Your task to perform on an android device: turn on showing notifications on the lock screen Image 0: 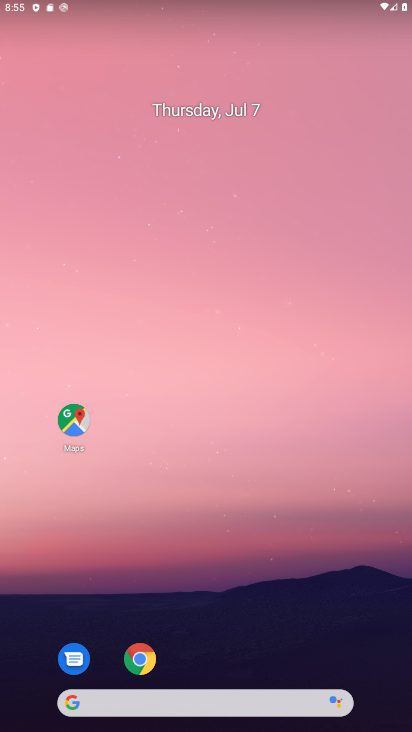
Step 0: drag from (228, 682) to (240, 5)
Your task to perform on an android device: turn on showing notifications on the lock screen Image 1: 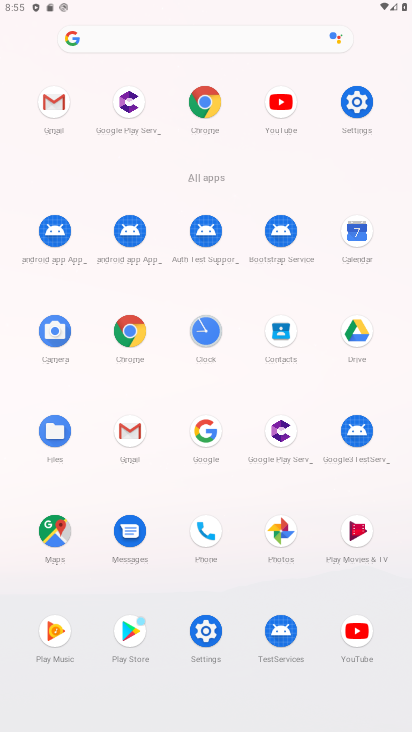
Step 1: click (212, 637)
Your task to perform on an android device: turn on showing notifications on the lock screen Image 2: 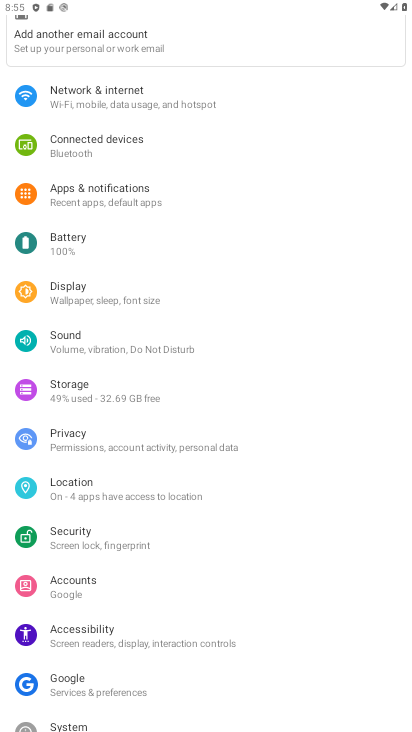
Step 2: click (130, 192)
Your task to perform on an android device: turn on showing notifications on the lock screen Image 3: 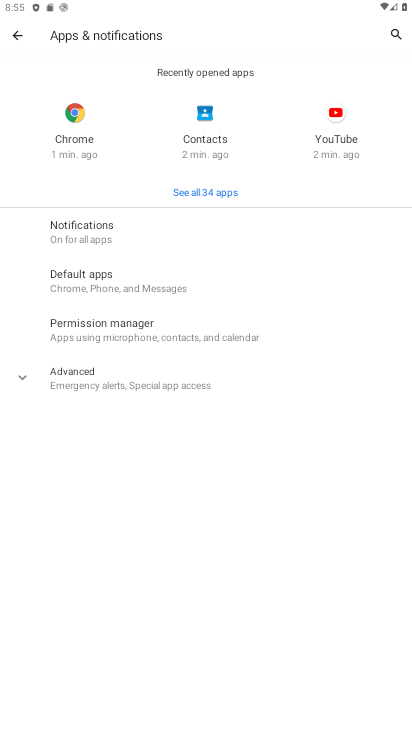
Step 3: click (106, 235)
Your task to perform on an android device: turn on showing notifications on the lock screen Image 4: 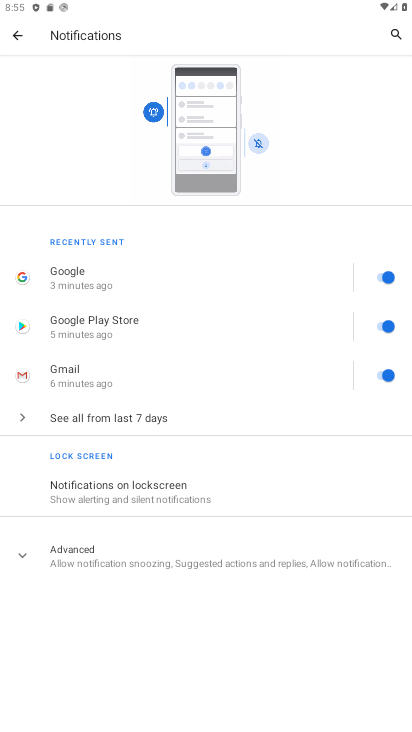
Step 4: click (142, 497)
Your task to perform on an android device: turn on showing notifications on the lock screen Image 5: 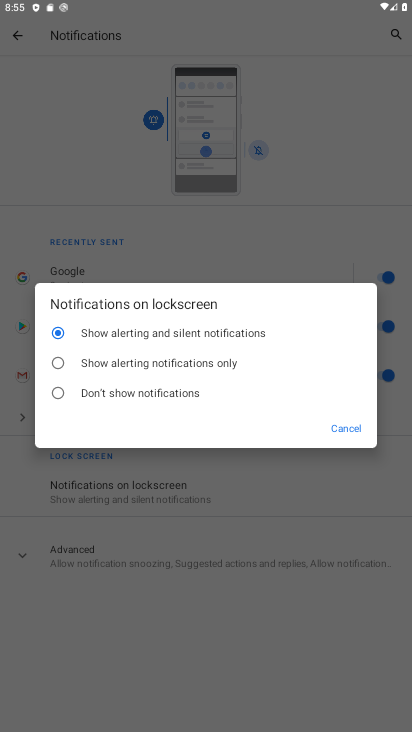
Step 5: task complete